Your task to perform on an android device: change the clock style Image 0: 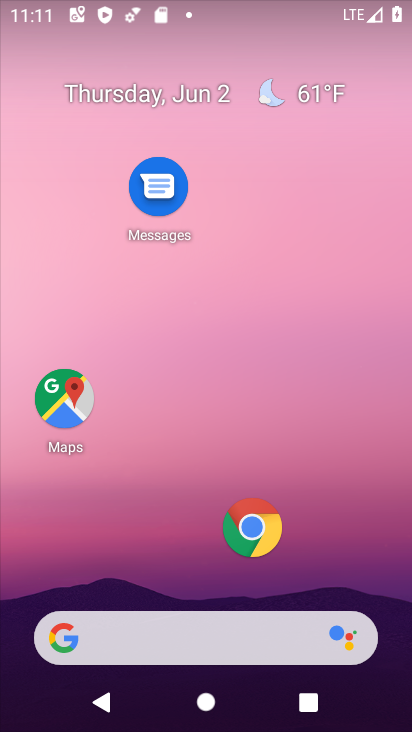
Step 0: drag from (203, 580) to (259, 40)
Your task to perform on an android device: change the clock style Image 1: 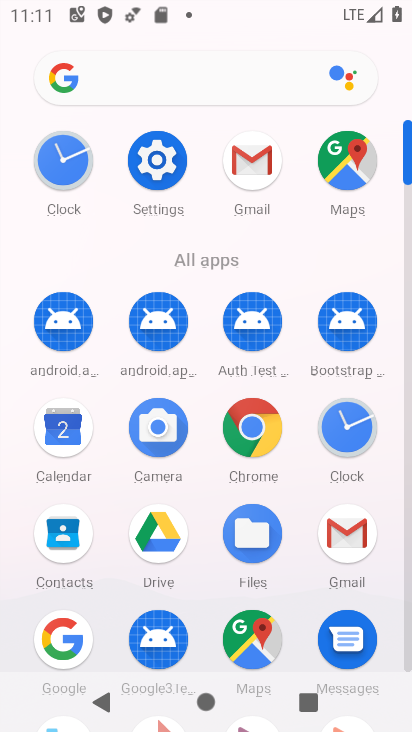
Step 1: click (347, 418)
Your task to perform on an android device: change the clock style Image 2: 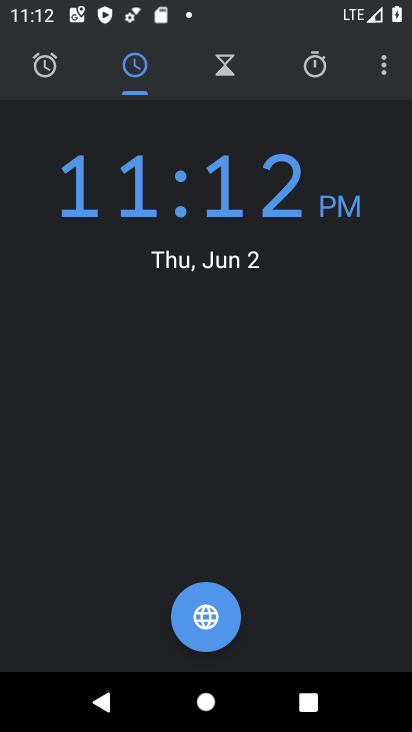
Step 2: click (384, 65)
Your task to perform on an android device: change the clock style Image 3: 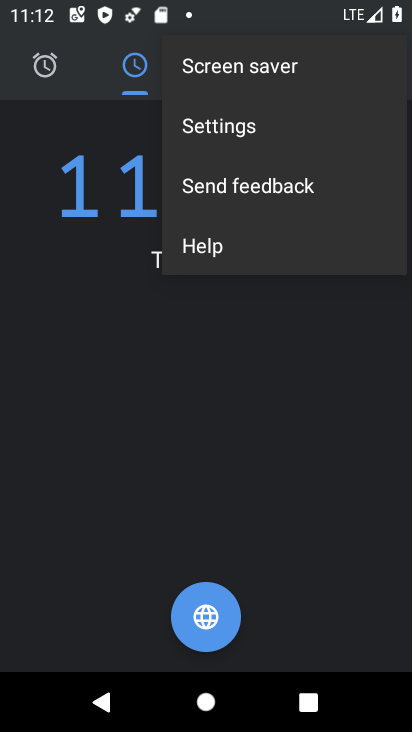
Step 3: click (264, 125)
Your task to perform on an android device: change the clock style Image 4: 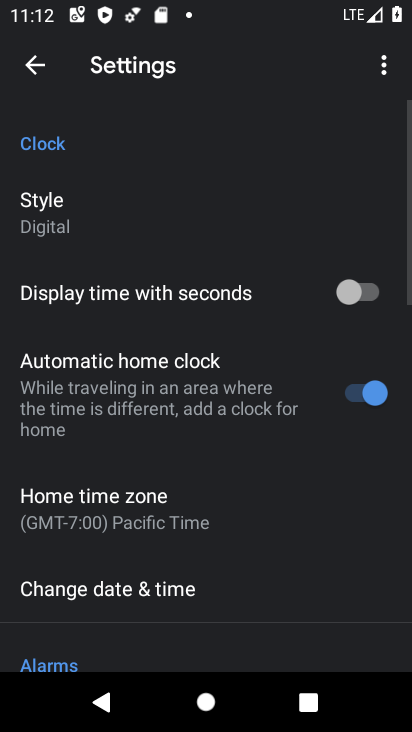
Step 4: click (112, 214)
Your task to perform on an android device: change the clock style Image 5: 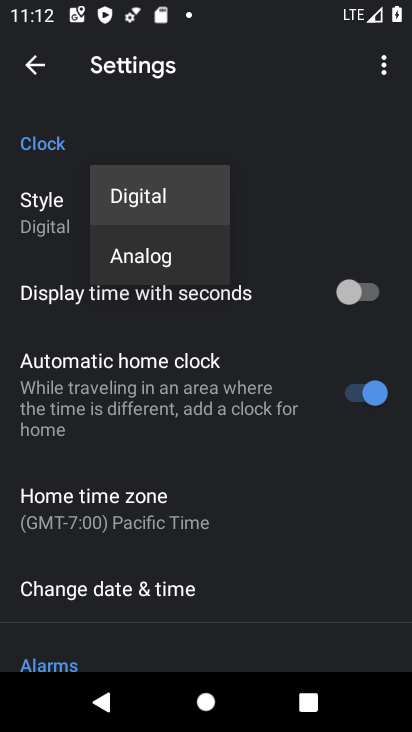
Step 5: click (108, 254)
Your task to perform on an android device: change the clock style Image 6: 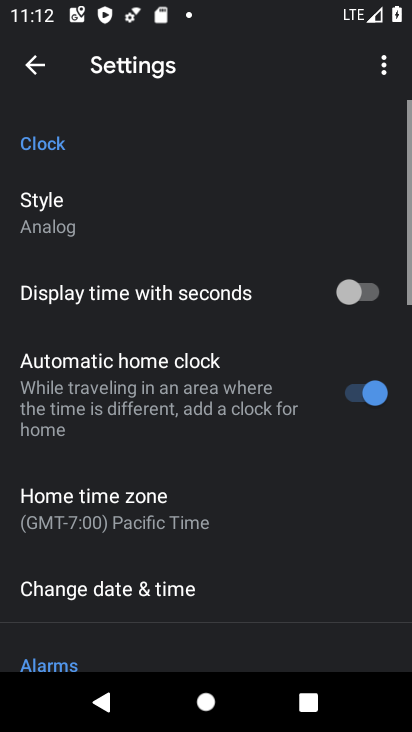
Step 6: task complete